Your task to perform on an android device: Go to location settings Image 0: 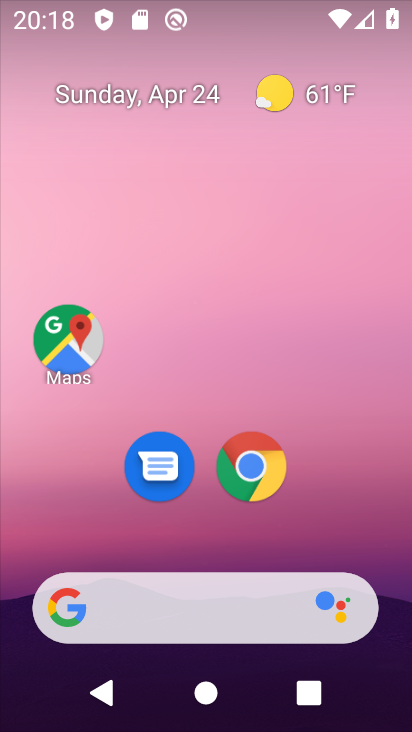
Step 0: drag from (203, 524) to (212, 6)
Your task to perform on an android device: Go to location settings Image 1: 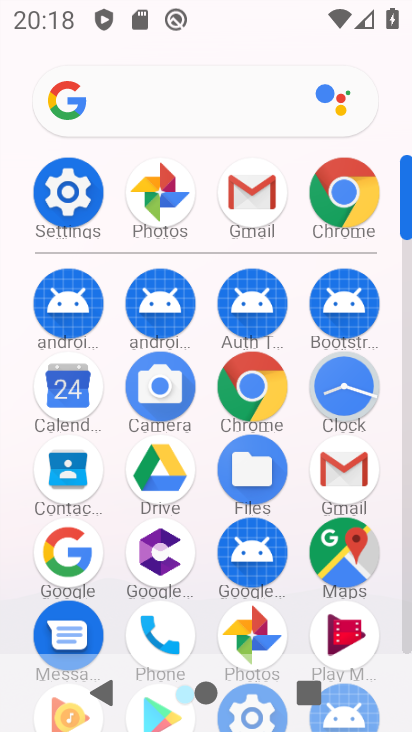
Step 1: click (75, 204)
Your task to perform on an android device: Go to location settings Image 2: 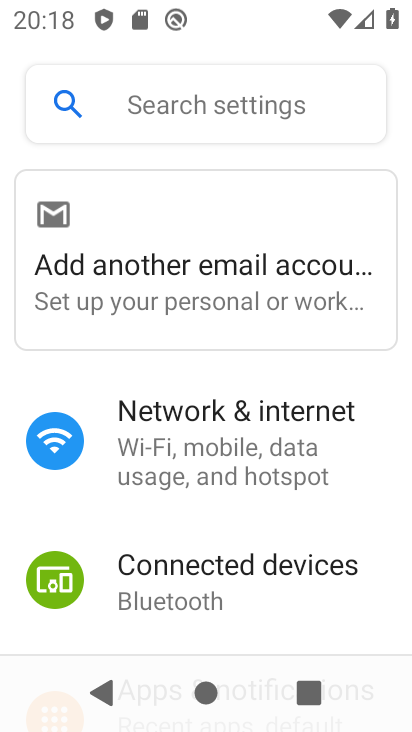
Step 2: drag from (209, 531) to (288, 84)
Your task to perform on an android device: Go to location settings Image 3: 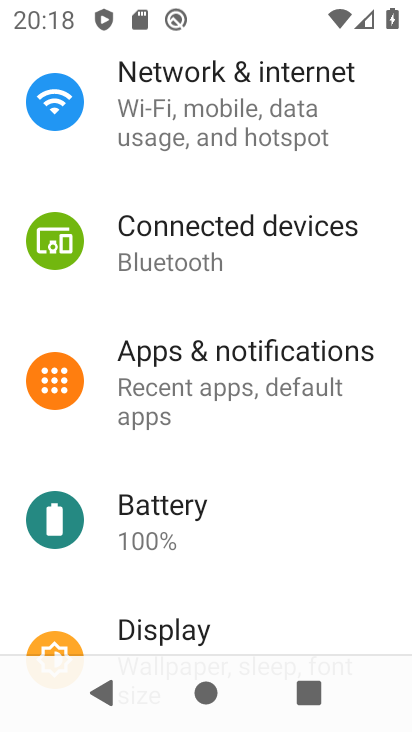
Step 3: drag from (214, 564) to (259, 67)
Your task to perform on an android device: Go to location settings Image 4: 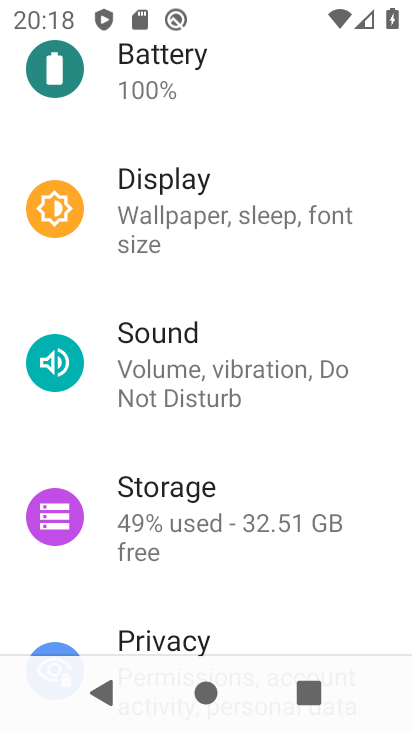
Step 4: drag from (176, 532) to (289, 33)
Your task to perform on an android device: Go to location settings Image 5: 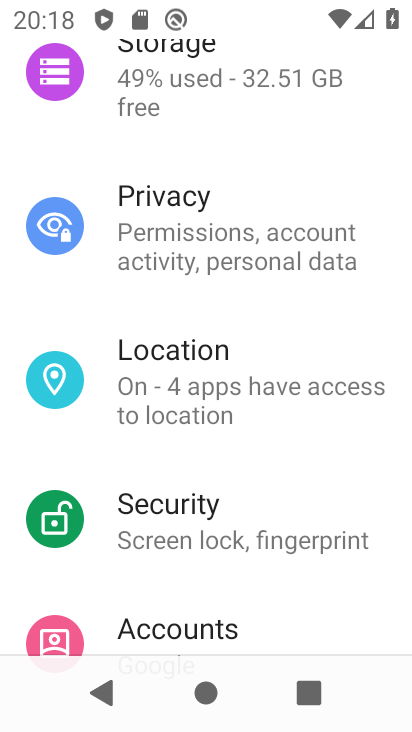
Step 5: click (153, 392)
Your task to perform on an android device: Go to location settings Image 6: 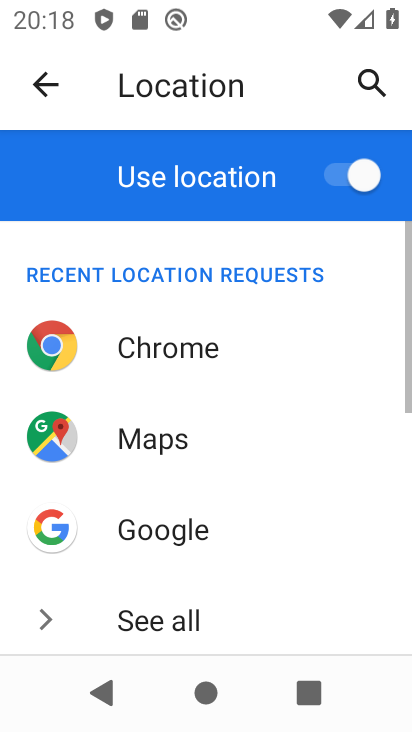
Step 6: task complete